Your task to perform on an android device: change notification settings in the gmail app Image 0: 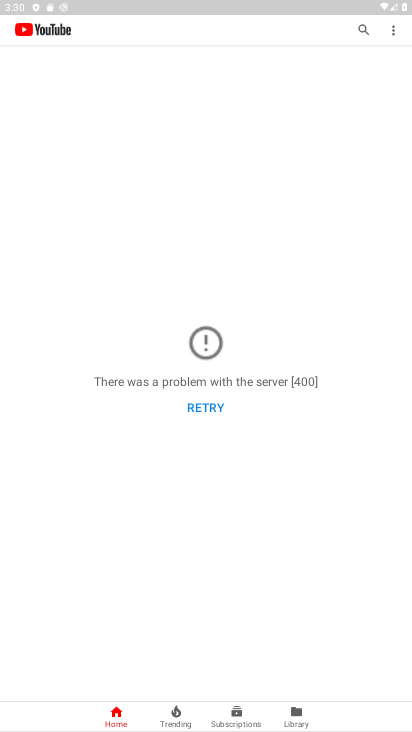
Step 0: press back button
Your task to perform on an android device: change notification settings in the gmail app Image 1: 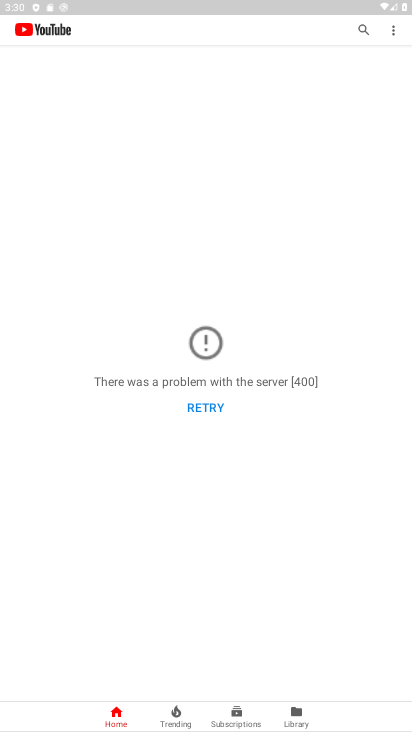
Step 1: press back button
Your task to perform on an android device: change notification settings in the gmail app Image 2: 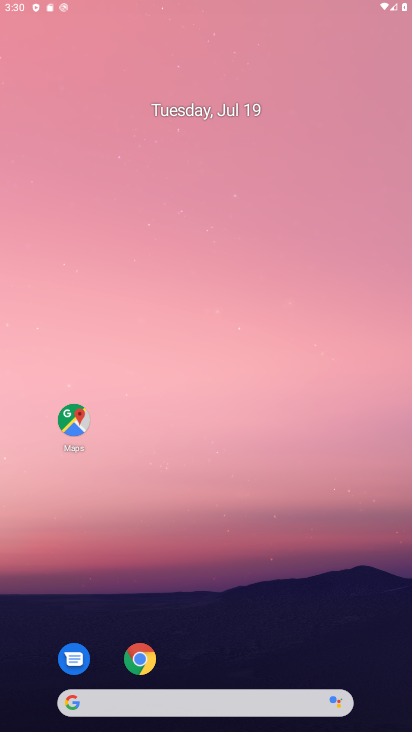
Step 2: press back button
Your task to perform on an android device: change notification settings in the gmail app Image 3: 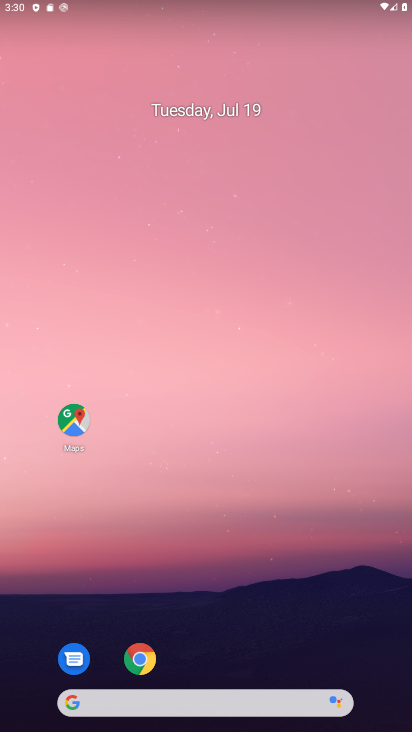
Step 3: drag from (208, 515) to (76, 46)
Your task to perform on an android device: change notification settings in the gmail app Image 4: 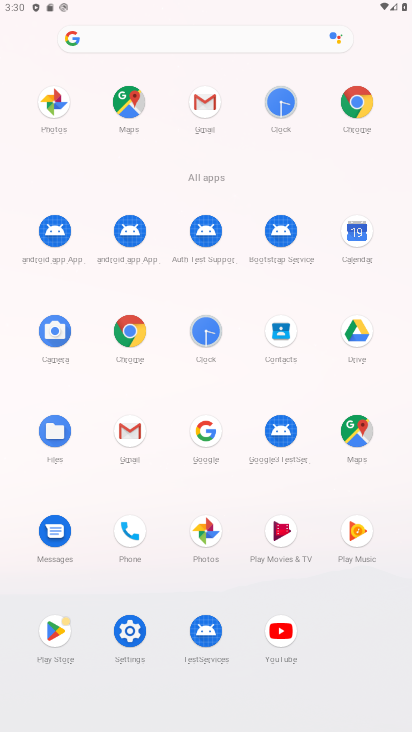
Step 4: click (133, 421)
Your task to perform on an android device: change notification settings in the gmail app Image 5: 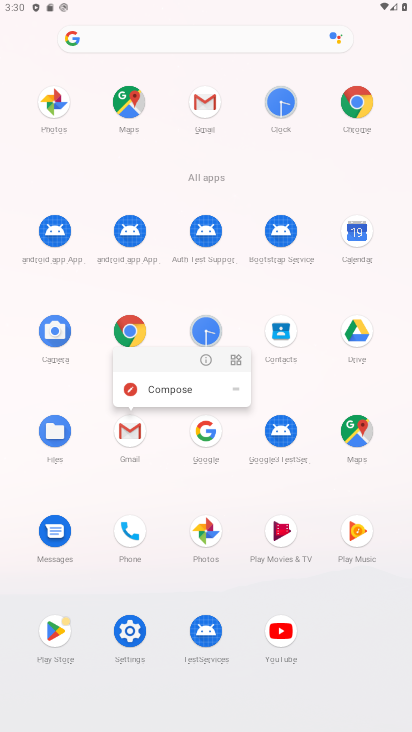
Step 5: click (123, 422)
Your task to perform on an android device: change notification settings in the gmail app Image 6: 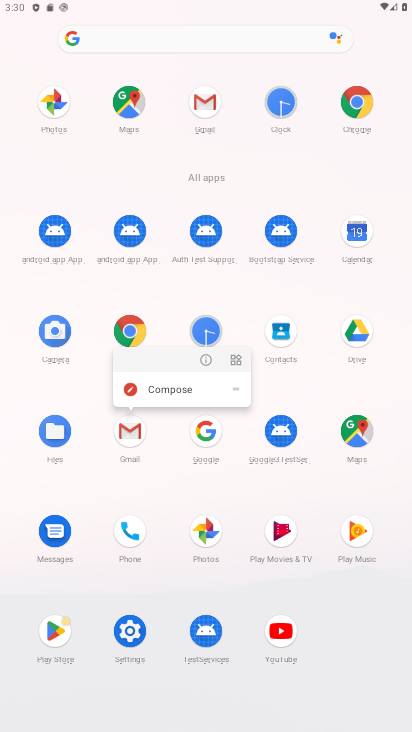
Step 6: click (123, 424)
Your task to perform on an android device: change notification settings in the gmail app Image 7: 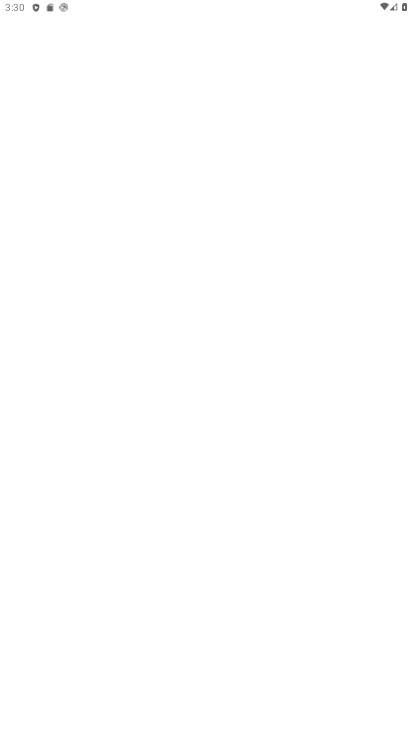
Step 7: click (123, 424)
Your task to perform on an android device: change notification settings in the gmail app Image 8: 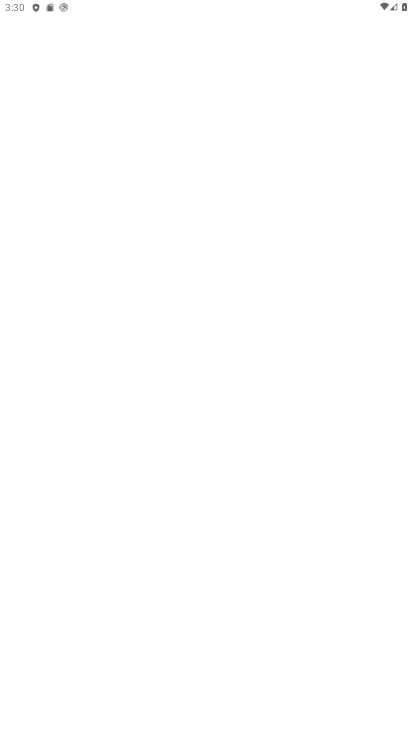
Step 8: click (124, 426)
Your task to perform on an android device: change notification settings in the gmail app Image 9: 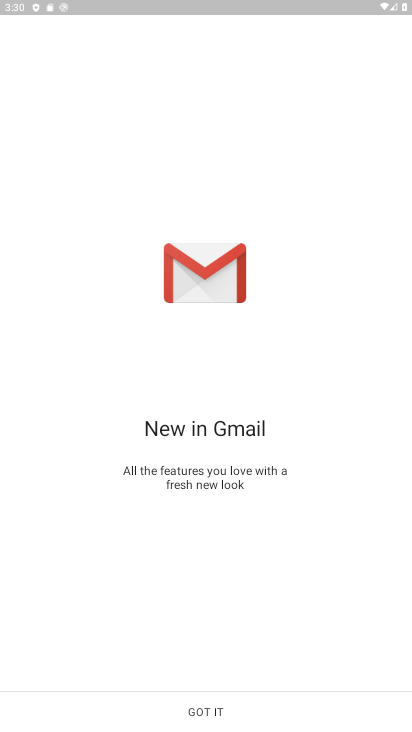
Step 9: click (203, 697)
Your task to perform on an android device: change notification settings in the gmail app Image 10: 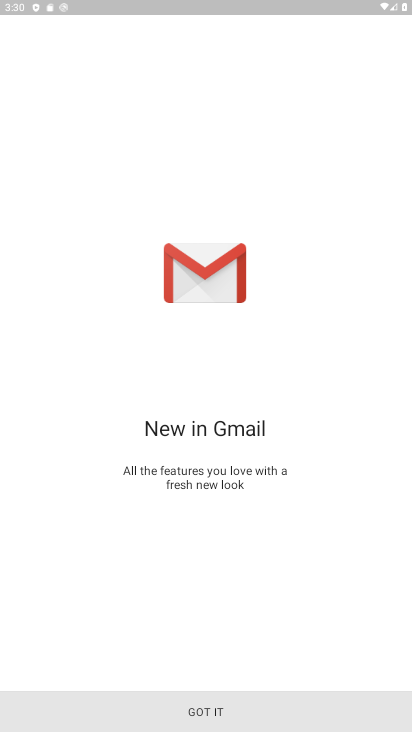
Step 10: click (203, 697)
Your task to perform on an android device: change notification settings in the gmail app Image 11: 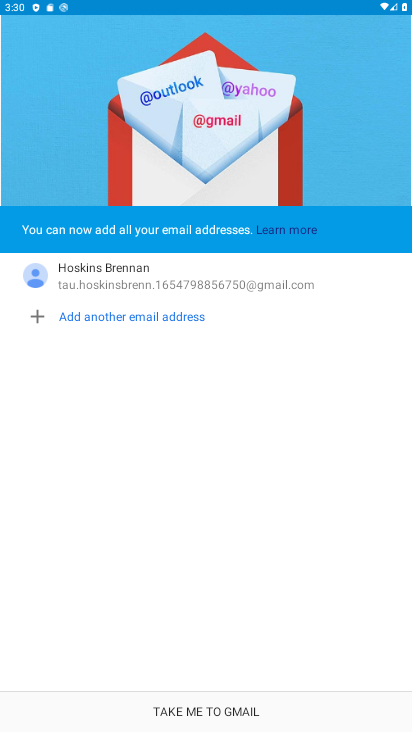
Step 11: drag from (216, 710) to (208, 670)
Your task to perform on an android device: change notification settings in the gmail app Image 12: 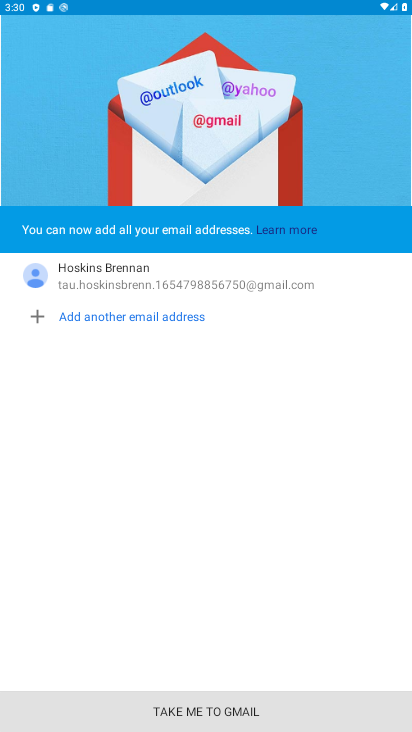
Step 12: click (228, 686)
Your task to perform on an android device: change notification settings in the gmail app Image 13: 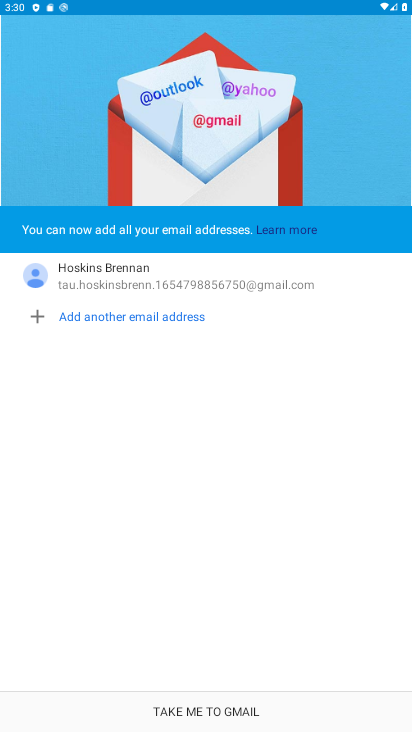
Step 13: click (235, 678)
Your task to perform on an android device: change notification settings in the gmail app Image 14: 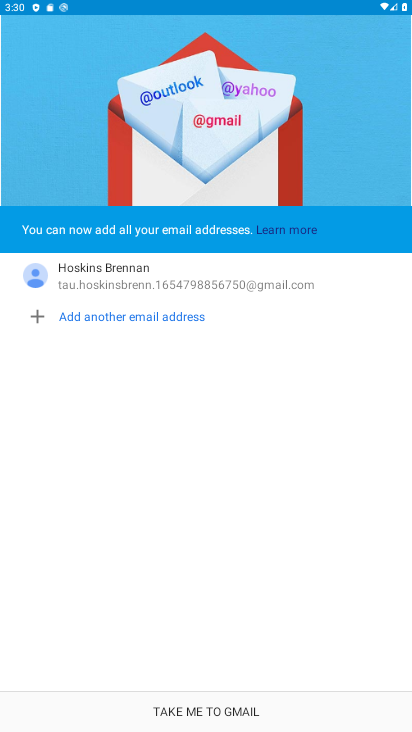
Step 14: click (238, 712)
Your task to perform on an android device: change notification settings in the gmail app Image 15: 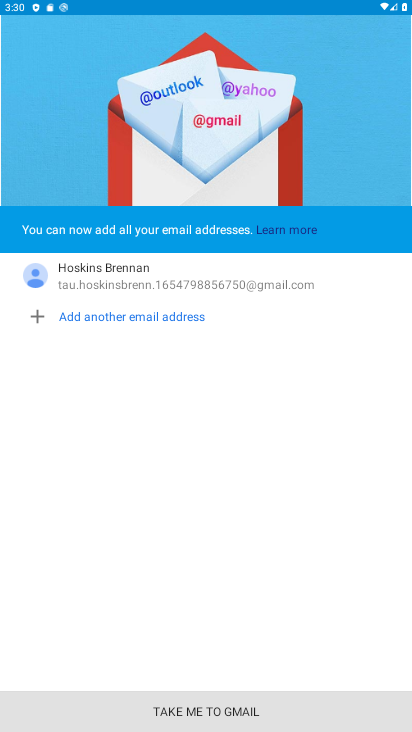
Step 15: click (238, 712)
Your task to perform on an android device: change notification settings in the gmail app Image 16: 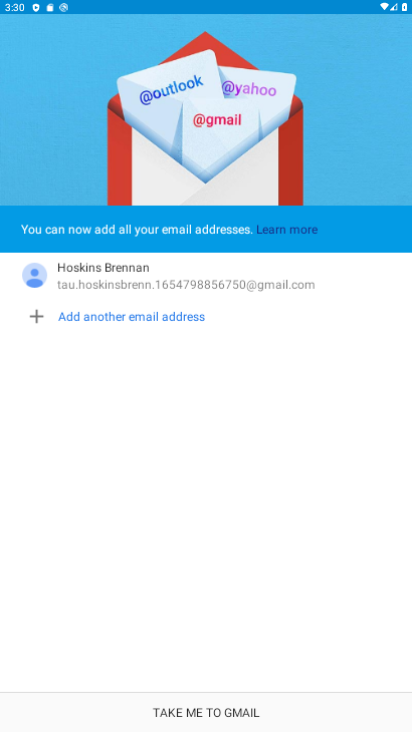
Step 16: click (248, 726)
Your task to perform on an android device: change notification settings in the gmail app Image 17: 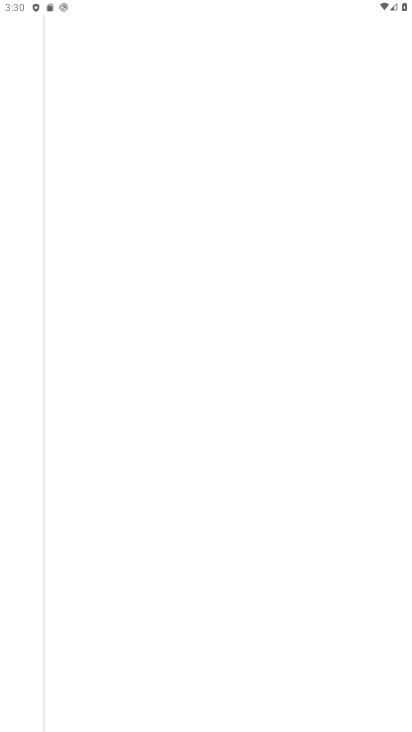
Step 17: click (248, 727)
Your task to perform on an android device: change notification settings in the gmail app Image 18: 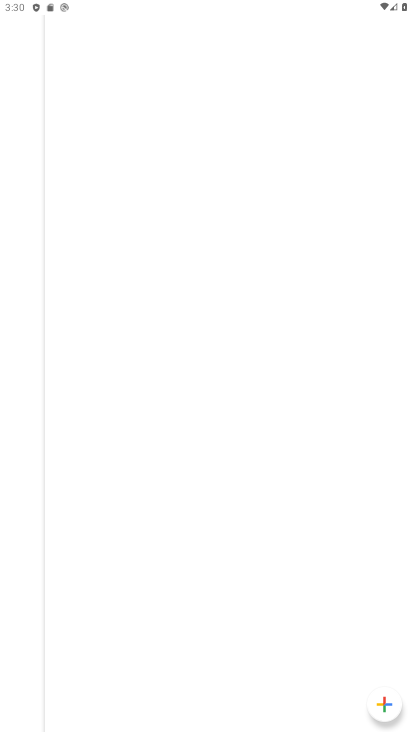
Step 18: click (240, 718)
Your task to perform on an android device: change notification settings in the gmail app Image 19: 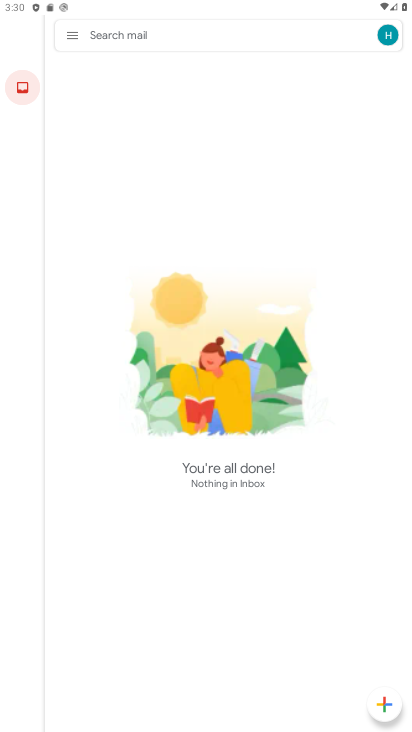
Step 19: click (75, 40)
Your task to perform on an android device: change notification settings in the gmail app Image 20: 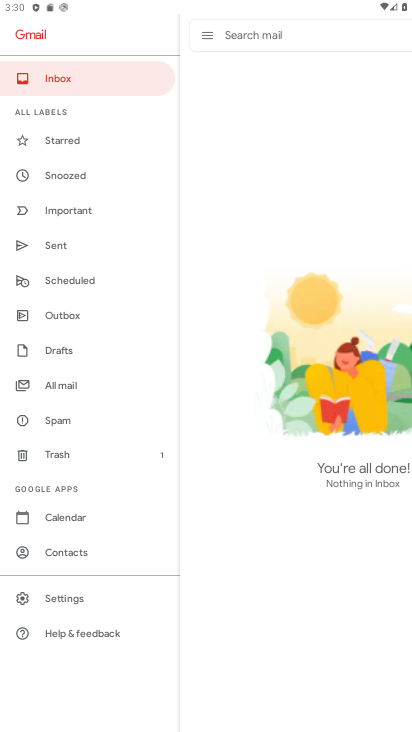
Step 20: click (51, 597)
Your task to perform on an android device: change notification settings in the gmail app Image 21: 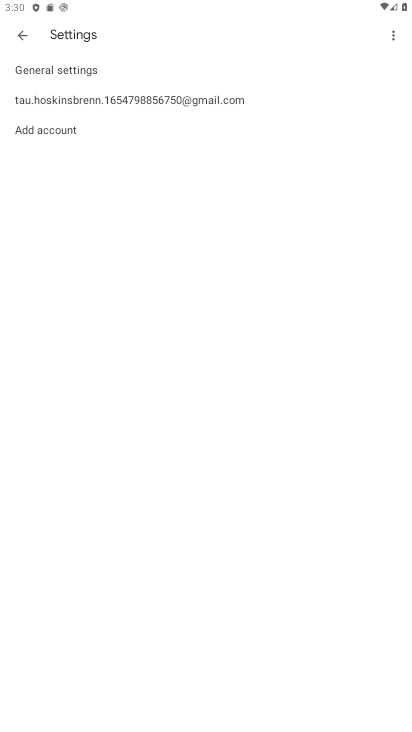
Step 21: click (109, 99)
Your task to perform on an android device: change notification settings in the gmail app Image 22: 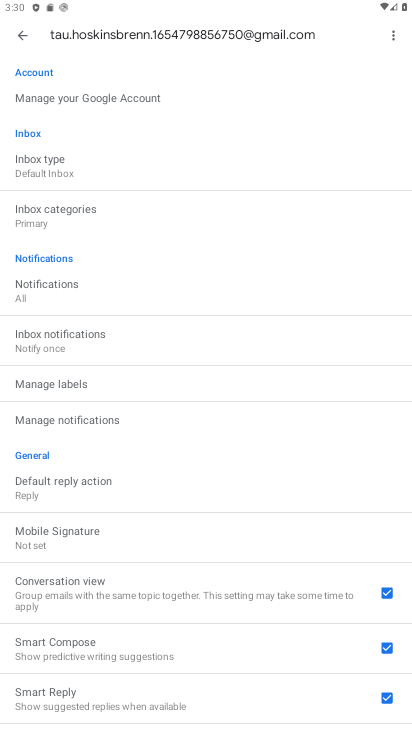
Step 22: click (65, 288)
Your task to perform on an android device: change notification settings in the gmail app Image 23: 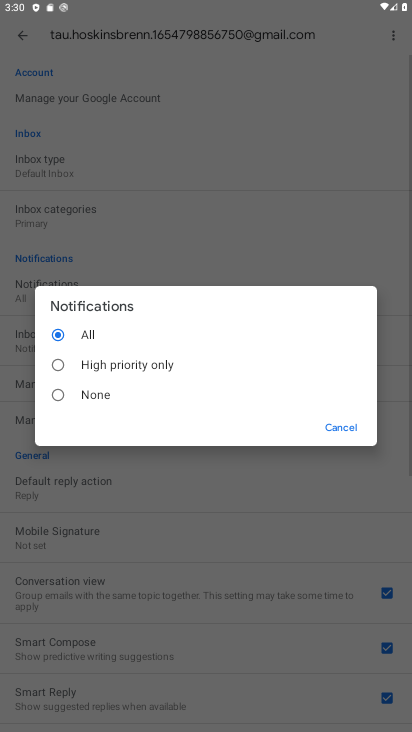
Step 23: click (64, 366)
Your task to perform on an android device: change notification settings in the gmail app Image 24: 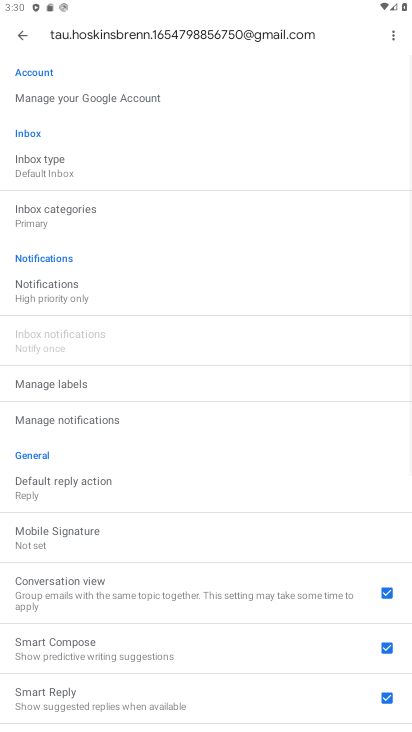
Step 24: task complete